Your task to perform on an android device: Open the calendar and show me this week's events? Image 0: 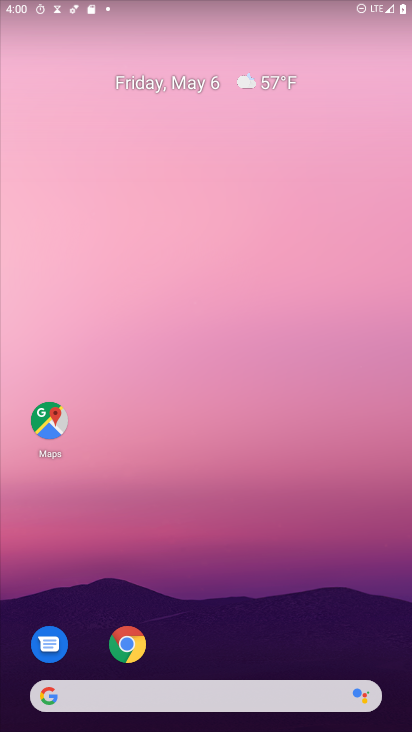
Step 0: drag from (228, 724) to (230, 397)
Your task to perform on an android device: Open the calendar and show me this week's events? Image 1: 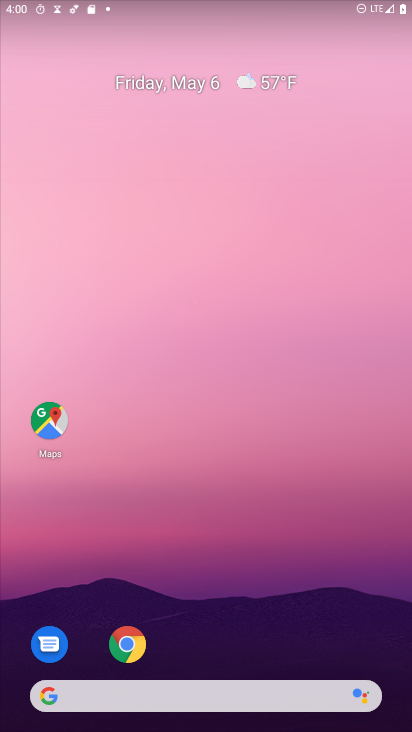
Step 1: drag from (184, 724) to (189, 249)
Your task to perform on an android device: Open the calendar and show me this week's events? Image 2: 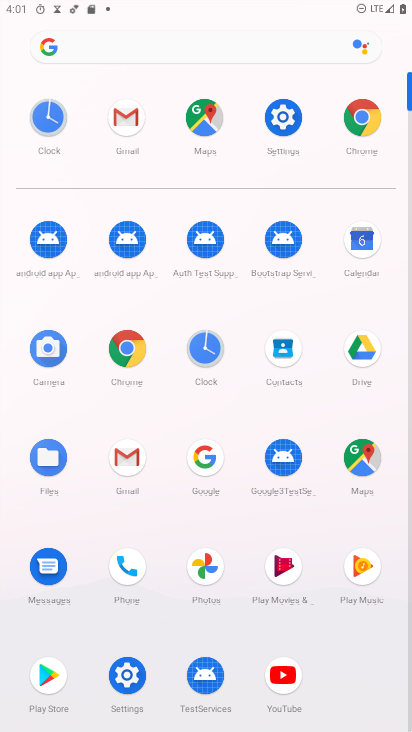
Step 2: click (365, 240)
Your task to perform on an android device: Open the calendar and show me this week's events? Image 3: 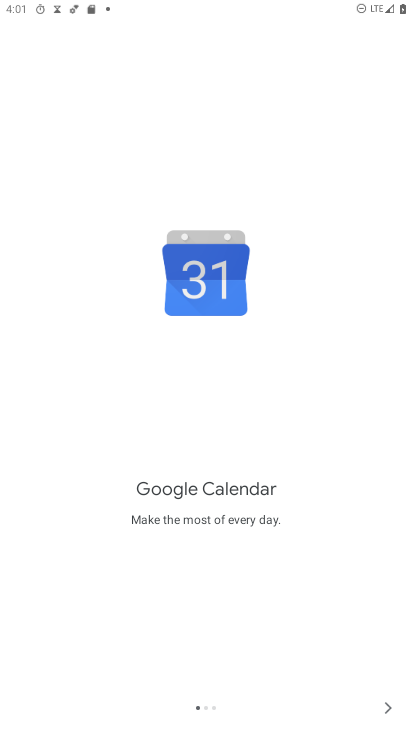
Step 3: click (388, 707)
Your task to perform on an android device: Open the calendar and show me this week's events? Image 4: 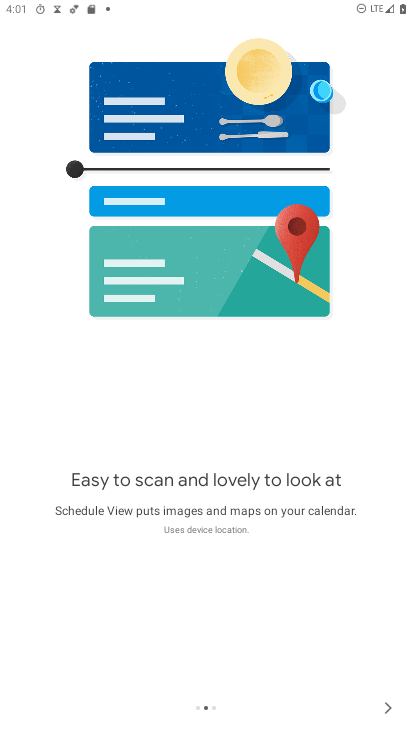
Step 4: click (388, 707)
Your task to perform on an android device: Open the calendar and show me this week's events? Image 5: 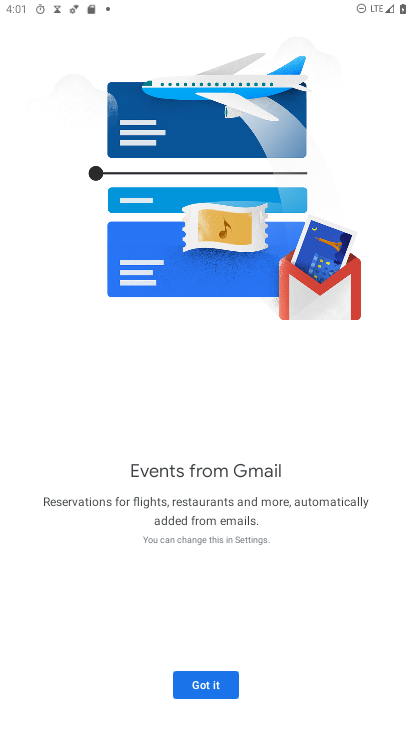
Step 5: click (201, 682)
Your task to perform on an android device: Open the calendar and show me this week's events? Image 6: 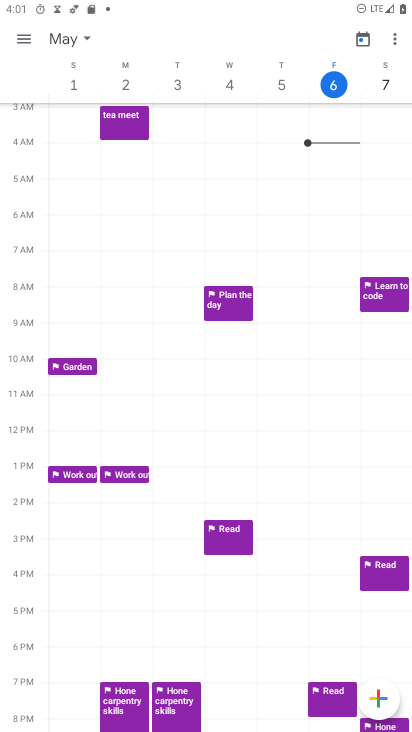
Step 6: click (386, 87)
Your task to perform on an android device: Open the calendar and show me this week's events? Image 7: 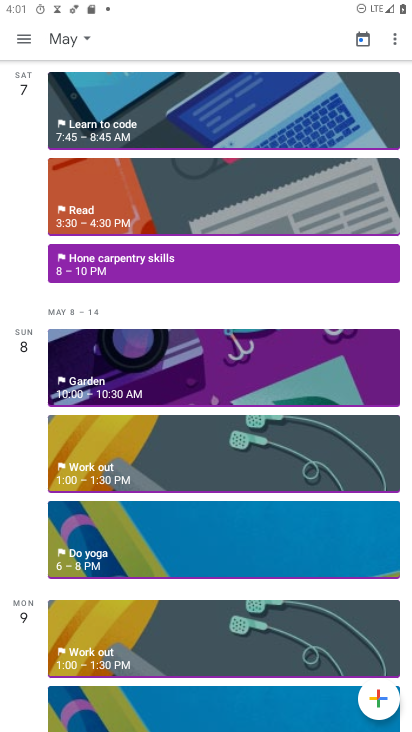
Step 7: click (24, 43)
Your task to perform on an android device: Open the calendar and show me this week's events? Image 8: 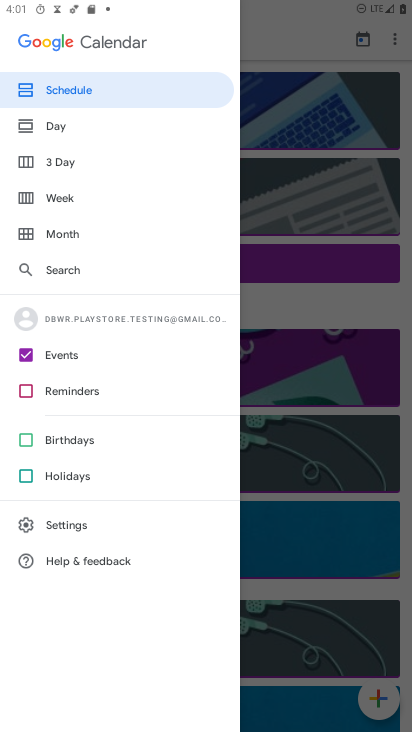
Step 8: click (60, 193)
Your task to perform on an android device: Open the calendar and show me this week's events? Image 9: 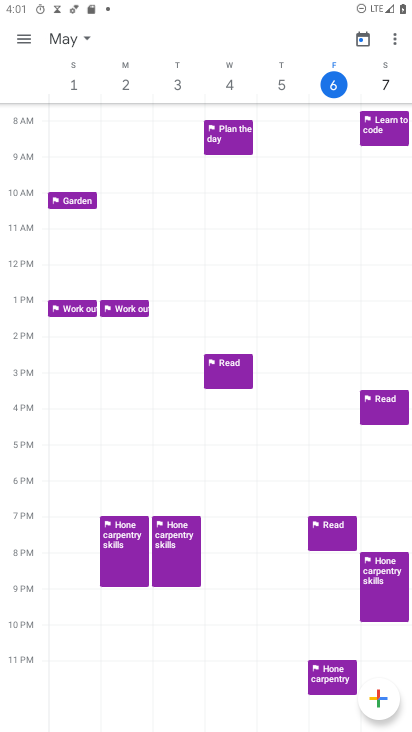
Step 9: task complete